Your task to perform on an android device: open device folders in google photos Image 0: 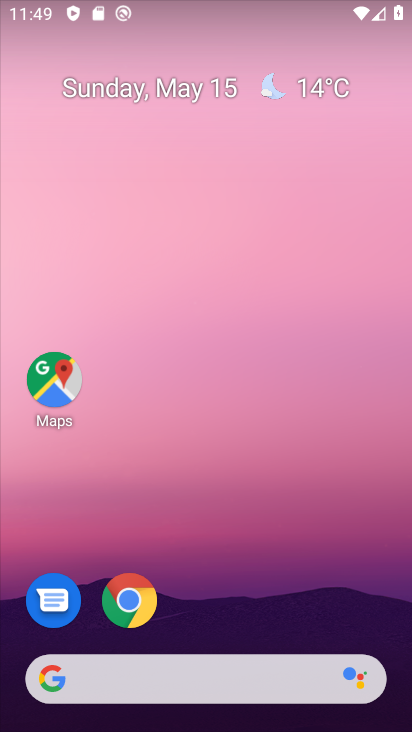
Step 0: drag from (247, 561) to (228, 13)
Your task to perform on an android device: open device folders in google photos Image 1: 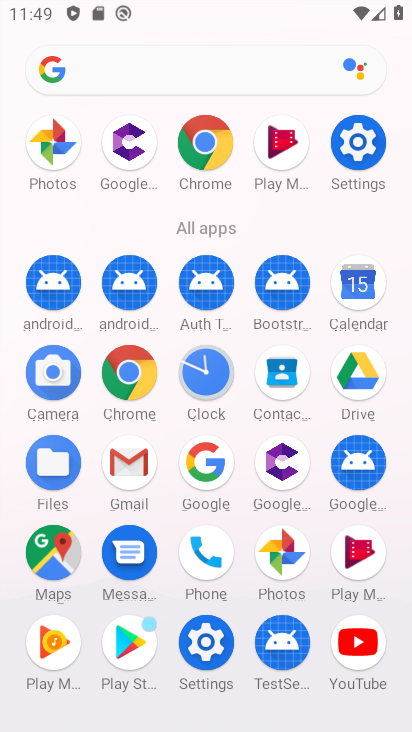
Step 1: drag from (5, 585) to (31, 339)
Your task to perform on an android device: open device folders in google photos Image 2: 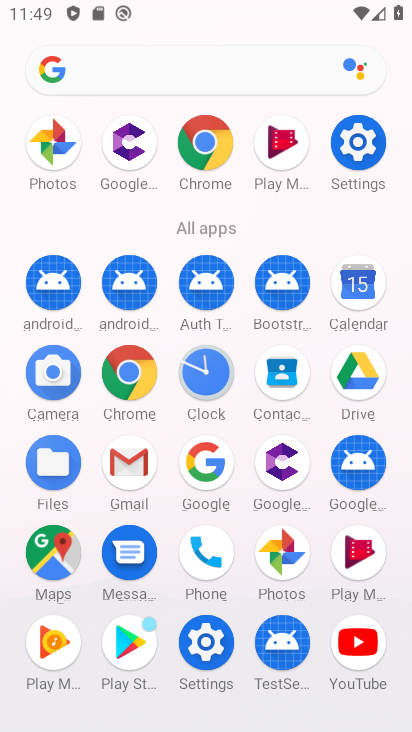
Step 2: click (280, 549)
Your task to perform on an android device: open device folders in google photos Image 3: 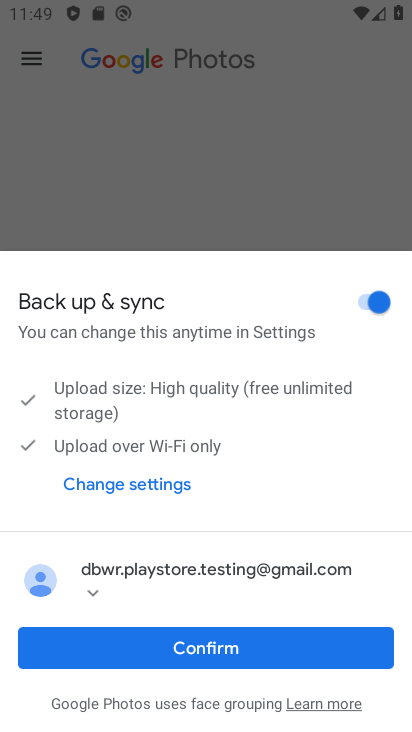
Step 3: click (211, 646)
Your task to perform on an android device: open device folders in google photos Image 4: 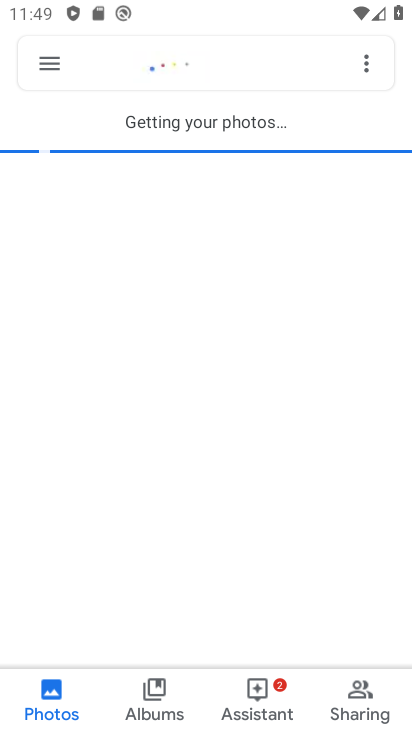
Step 4: click (48, 52)
Your task to perform on an android device: open device folders in google photos Image 5: 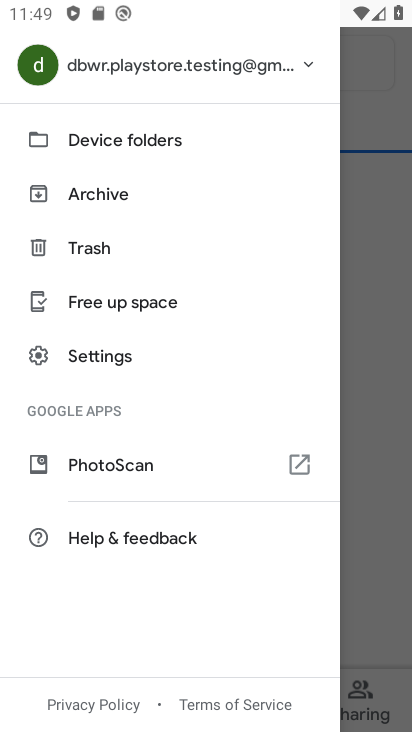
Step 5: click (134, 141)
Your task to perform on an android device: open device folders in google photos Image 6: 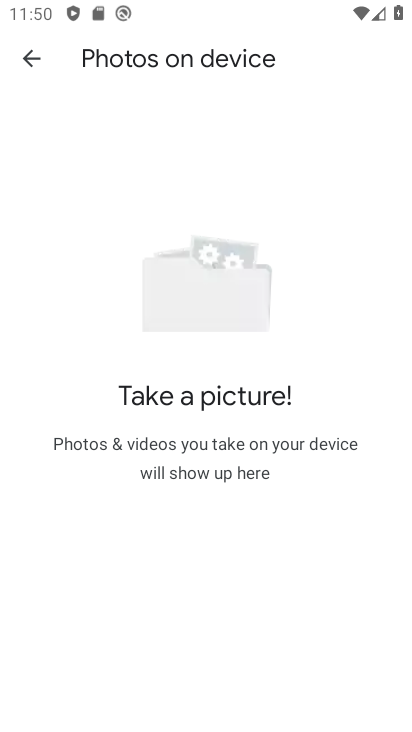
Step 6: task complete